Your task to perform on an android device: What is the news today? Image 0: 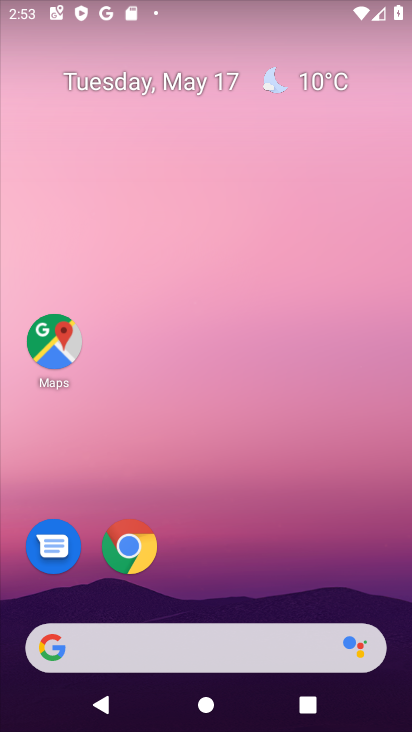
Step 0: drag from (209, 589) to (256, 133)
Your task to perform on an android device: What is the news today? Image 1: 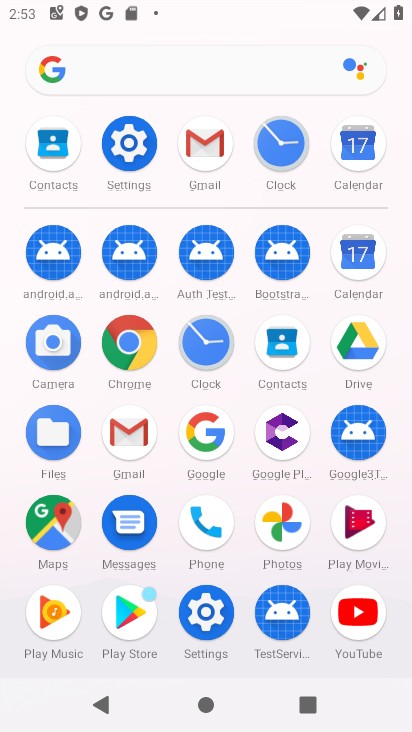
Step 1: click (222, 71)
Your task to perform on an android device: What is the news today? Image 2: 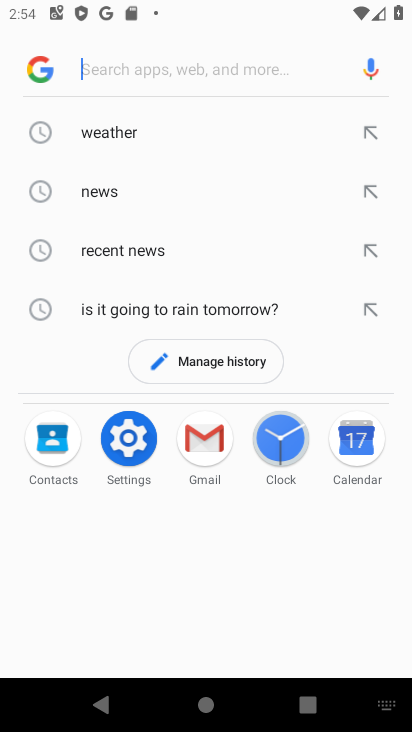
Step 2: type "news today?"
Your task to perform on an android device: What is the news today? Image 3: 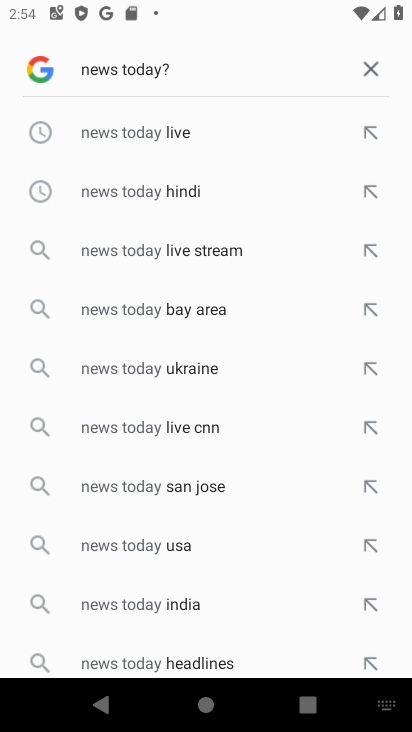
Step 3: click (166, 126)
Your task to perform on an android device: What is the news today? Image 4: 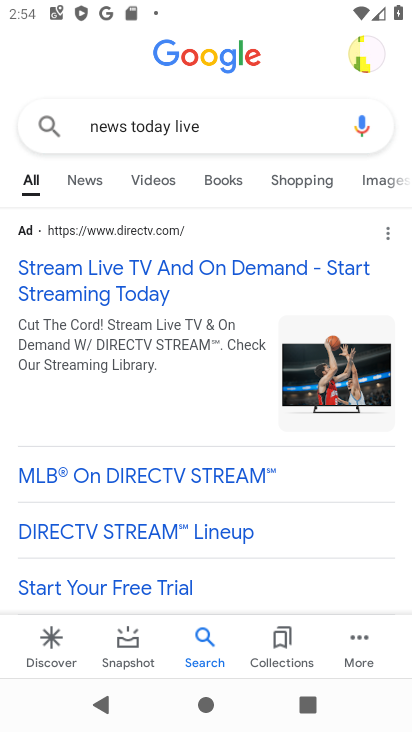
Step 4: task complete